Your task to perform on an android device: Turn on the flashlight Image 0: 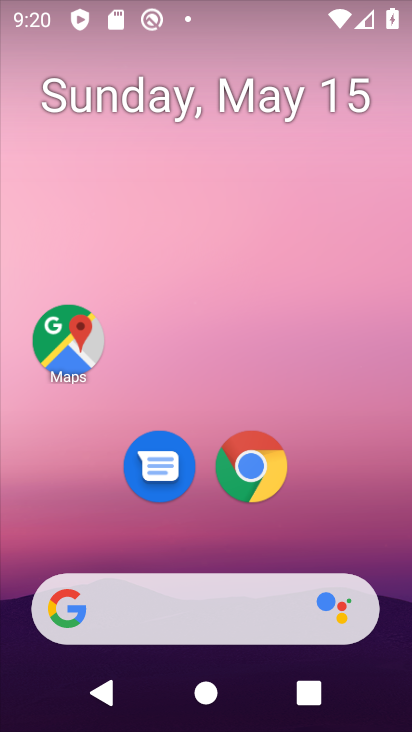
Step 0: drag from (246, 9) to (252, 592)
Your task to perform on an android device: Turn on the flashlight Image 1: 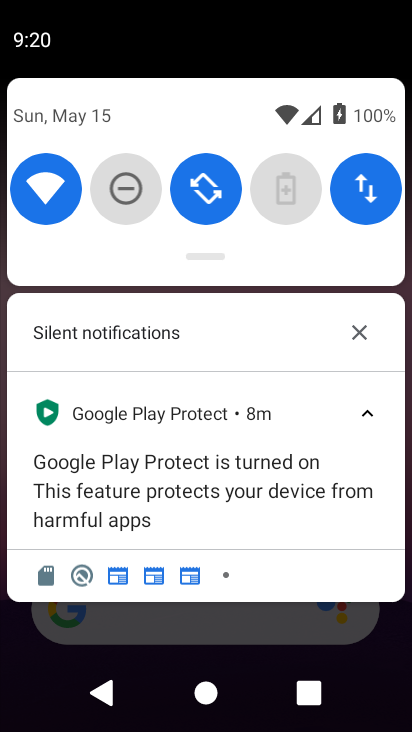
Step 1: task complete